Your task to perform on an android device: Go to accessibility settings Image 0: 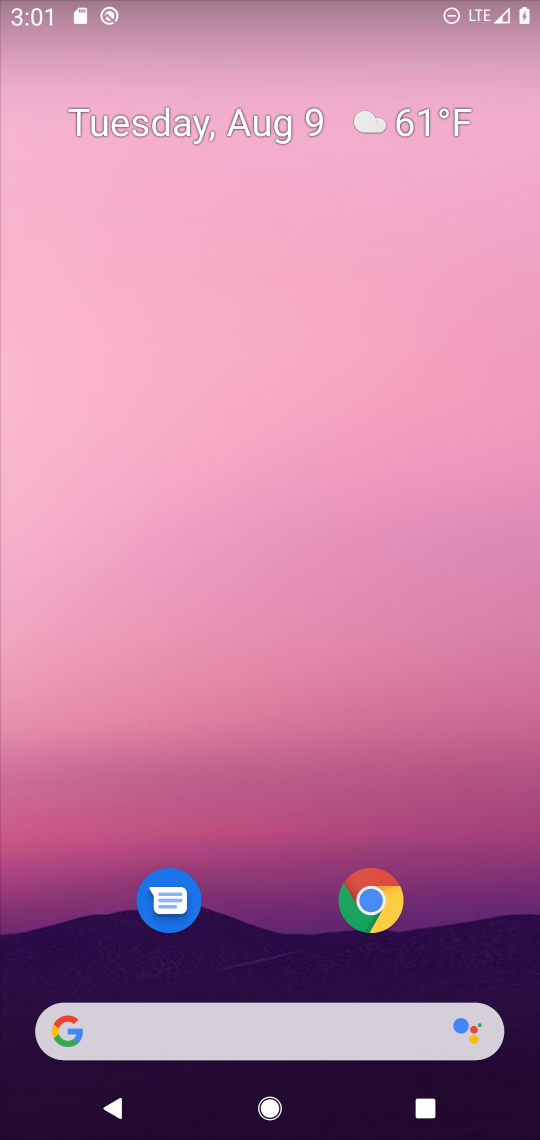
Step 0: drag from (283, 934) to (283, 285)
Your task to perform on an android device: Go to accessibility settings Image 1: 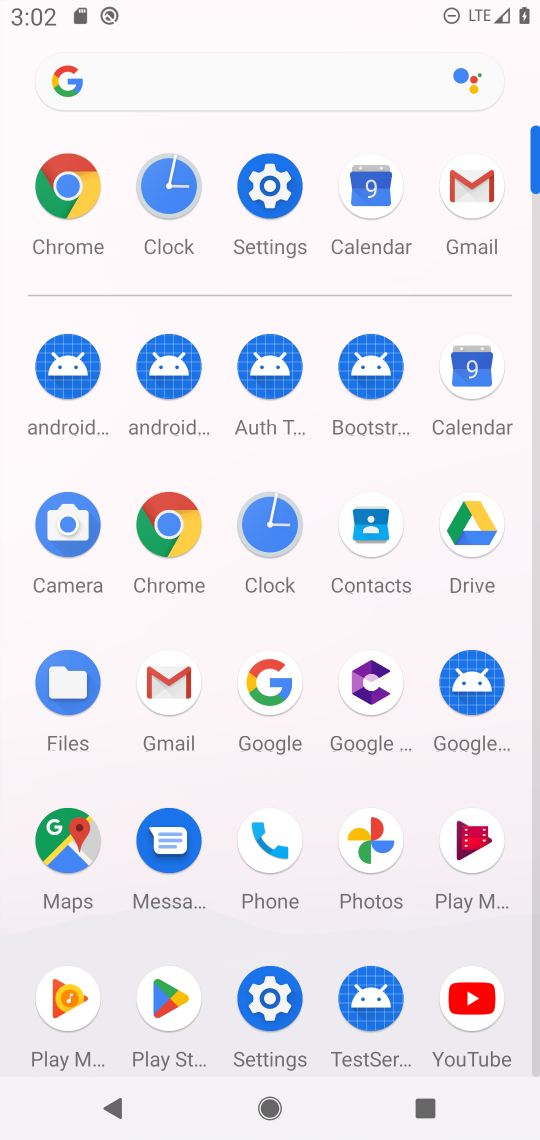
Step 1: click (275, 184)
Your task to perform on an android device: Go to accessibility settings Image 2: 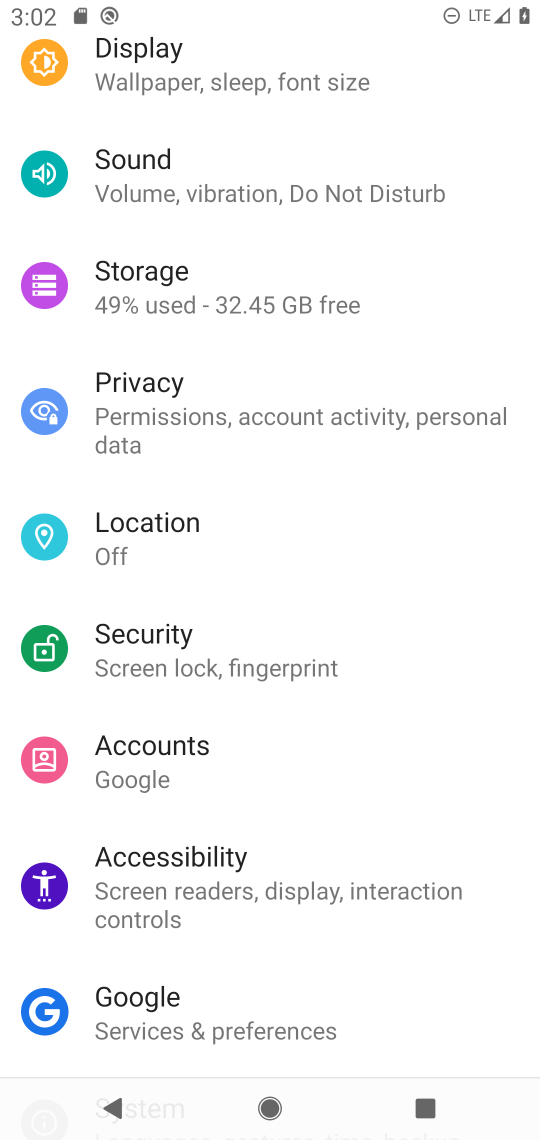
Step 2: drag from (467, 339) to (460, 552)
Your task to perform on an android device: Go to accessibility settings Image 3: 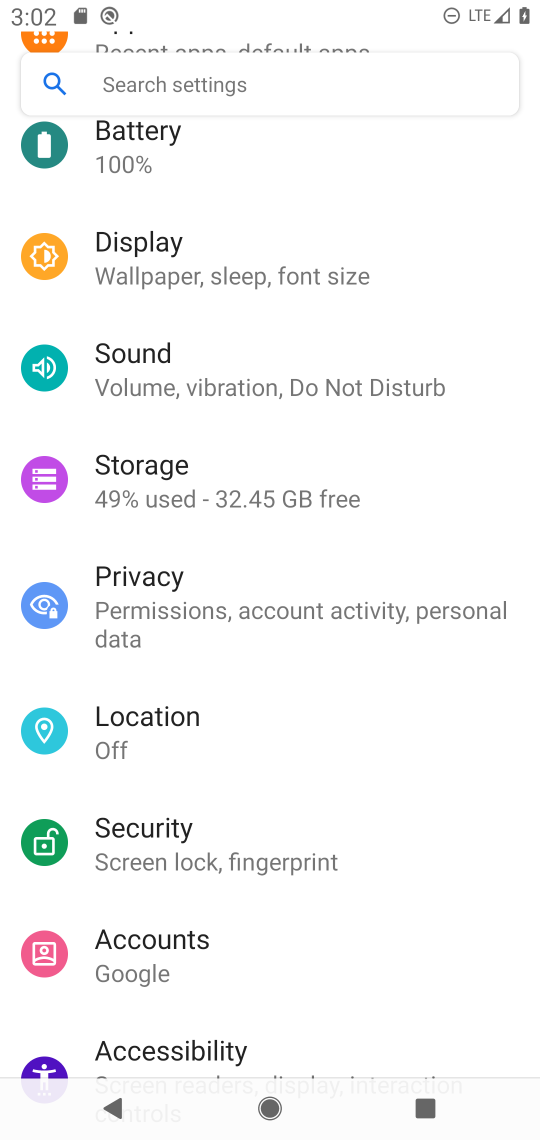
Step 3: drag from (459, 460) to (456, 662)
Your task to perform on an android device: Go to accessibility settings Image 4: 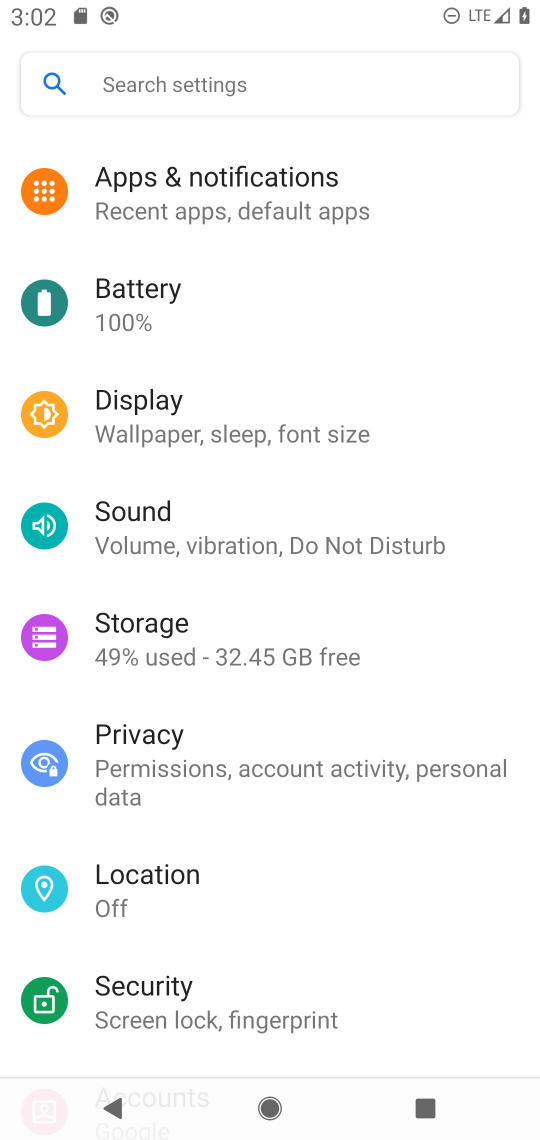
Step 4: drag from (487, 386) to (494, 635)
Your task to perform on an android device: Go to accessibility settings Image 5: 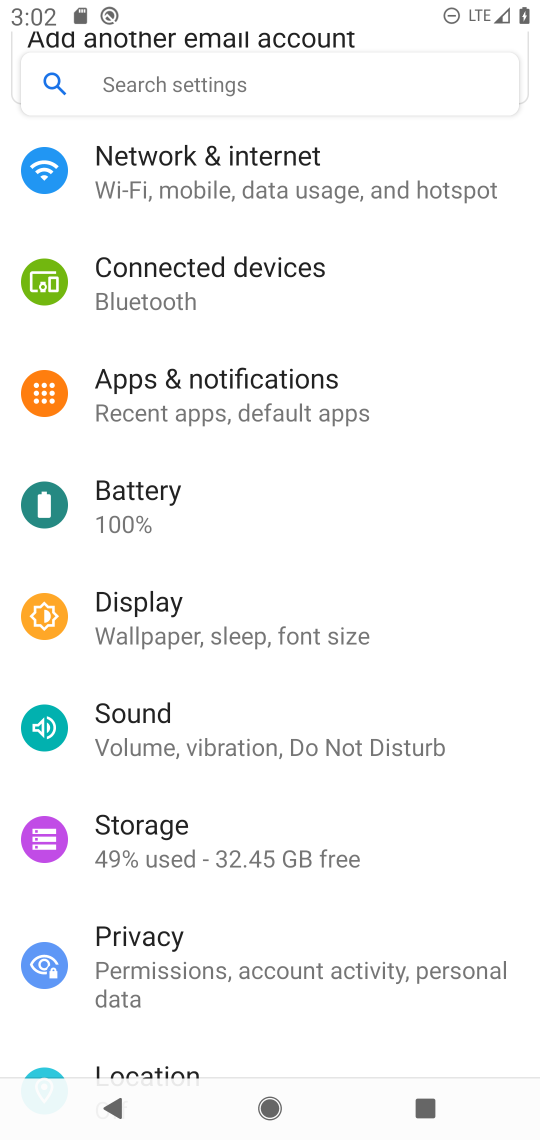
Step 5: drag from (469, 366) to (470, 587)
Your task to perform on an android device: Go to accessibility settings Image 6: 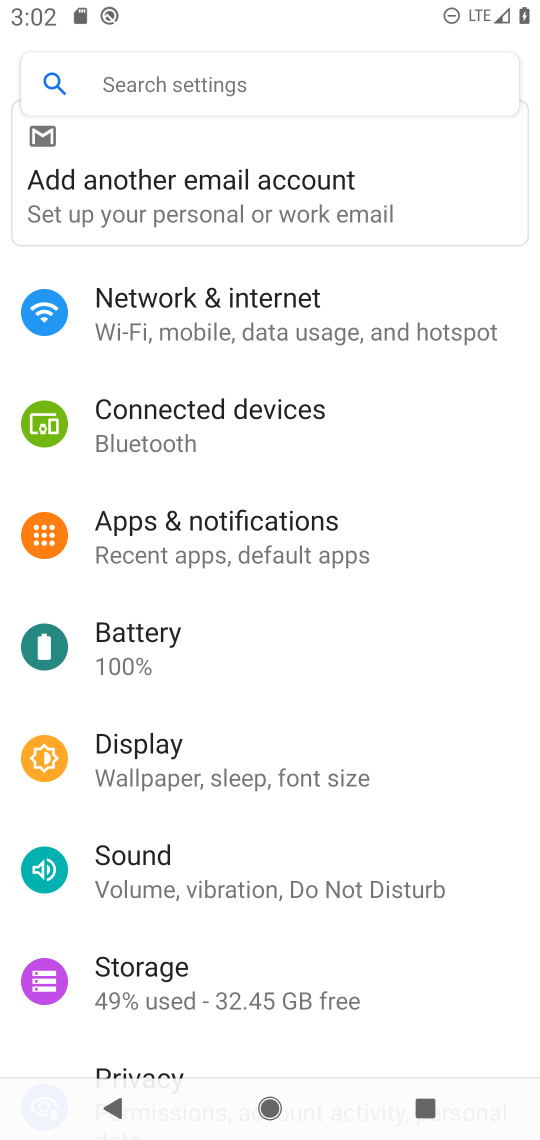
Step 6: drag from (456, 724) to (481, 527)
Your task to perform on an android device: Go to accessibility settings Image 7: 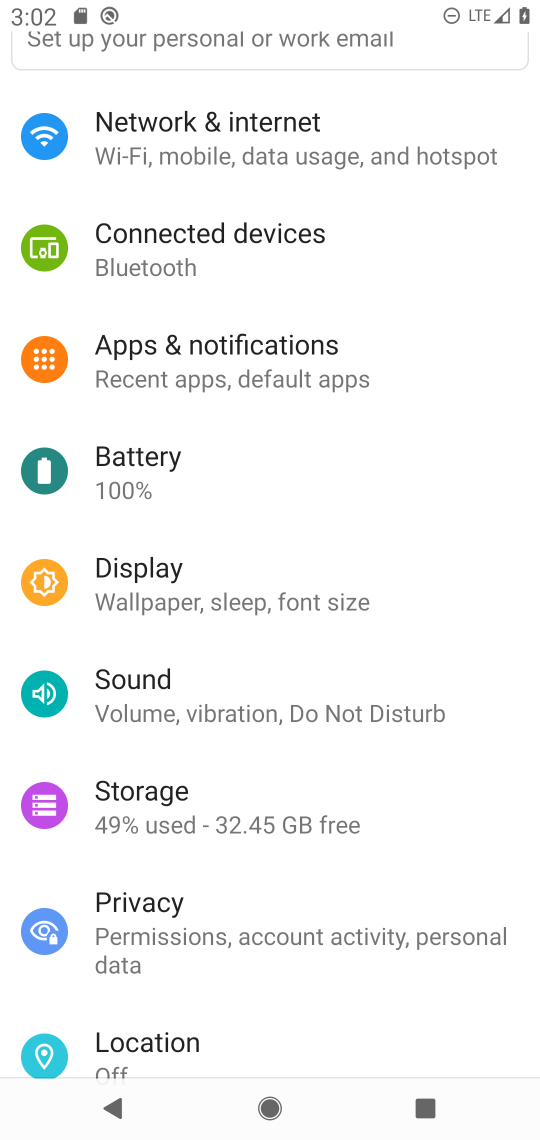
Step 7: drag from (475, 779) to (478, 508)
Your task to perform on an android device: Go to accessibility settings Image 8: 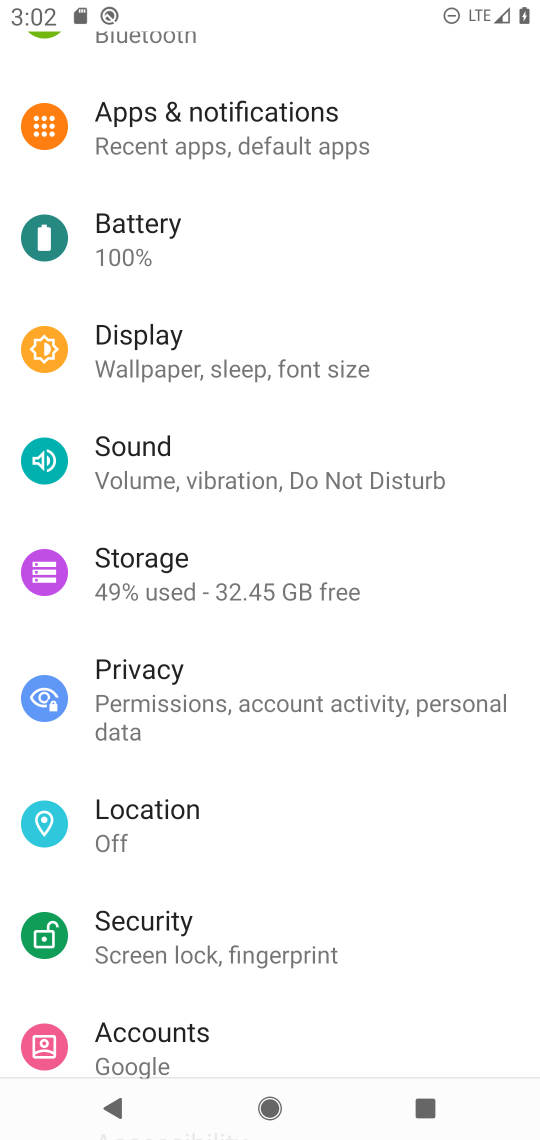
Step 8: drag from (424, 806) to (426, 555)
Your task to perform on an android device: Go to accessibility settings Image 9: 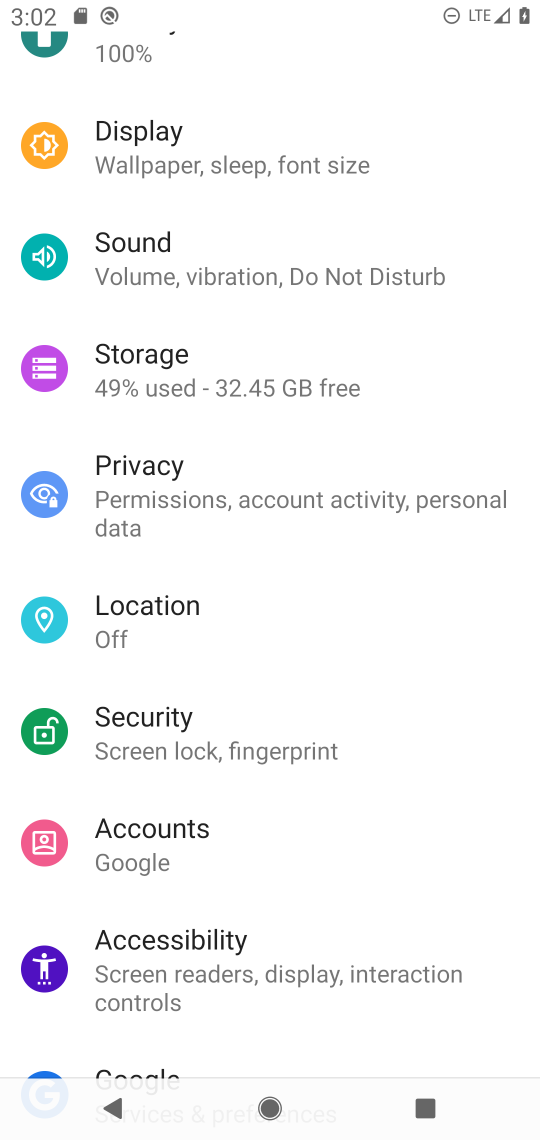
Step 9: drag from (390, 798) to (401, 594)
Your task to perform on an android device: Go to accessibility settings Image 10: 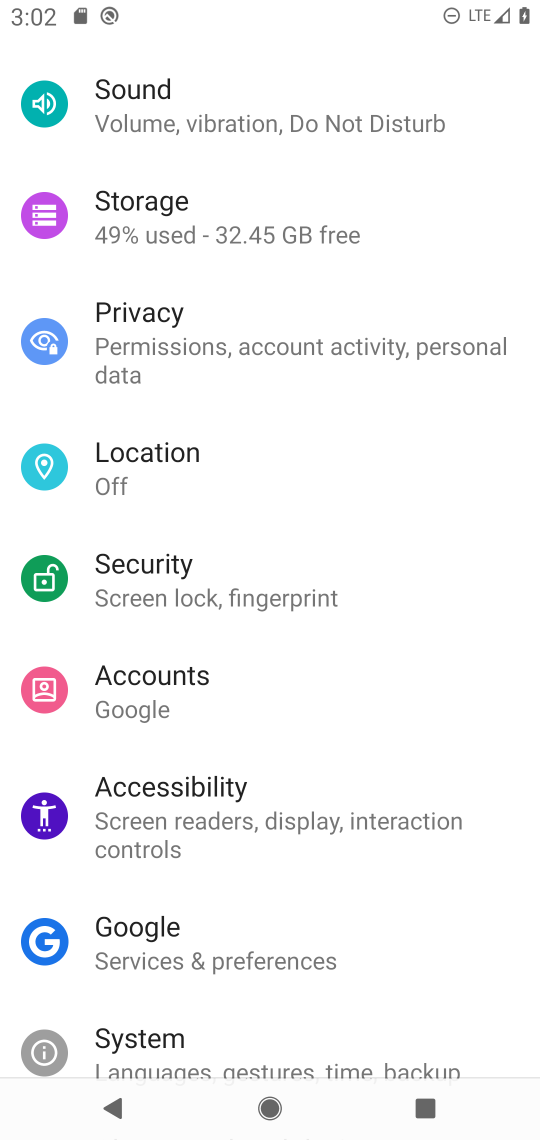
Step 10: click (396, 828)
Your task to perform on an android device: Go to accessibility settings Image 11: 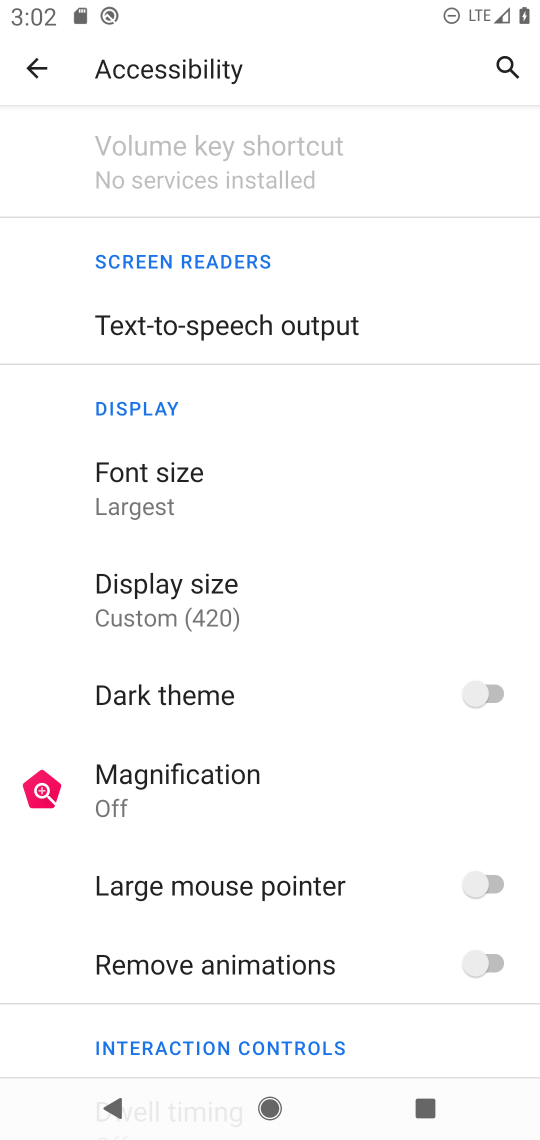
Step 11: task complete